Your task to perform on an android device: turn off wifi Image 0: 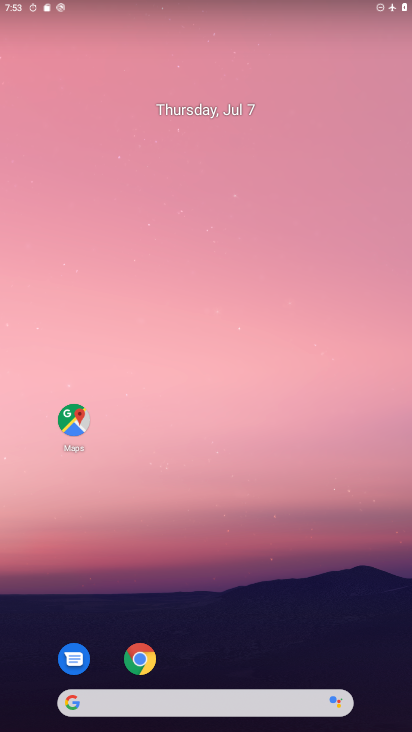
Step 0: drag from (200, 8) to (227, 309)
Your task to perform on an android device: turn off wifi Image 1: 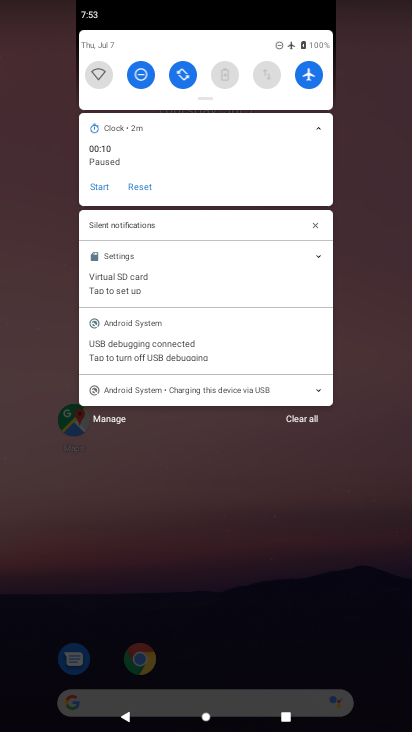
Step 1: task complete